Your task to perform on an android device: Turn on the flashlight Image 0: 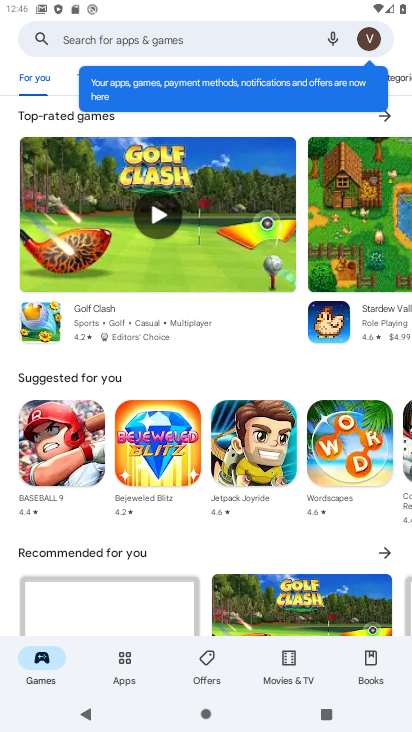
Step 0: press home button
Your task to perform on an android device: Turn on the flashlight Image 1: 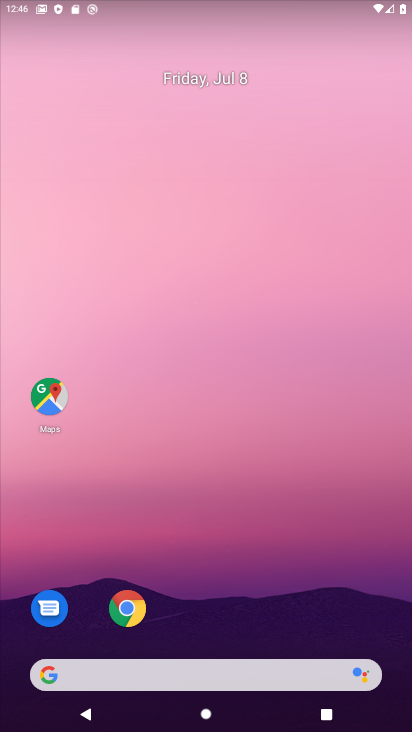
Step 1: drag from (230, 14) to (239, 393)
Your task to perform on an android device: Turn on the flashlight Image 2: 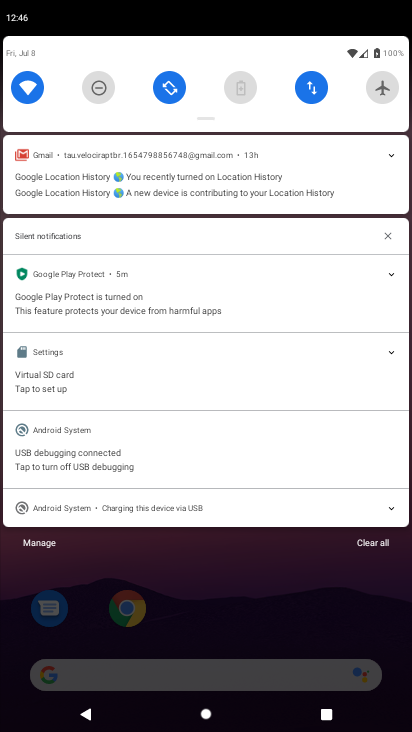
Step 2: drag from (216, 124) to (179, 430)
Your task to perform on an android device: Turn on the flashlight Image 3: 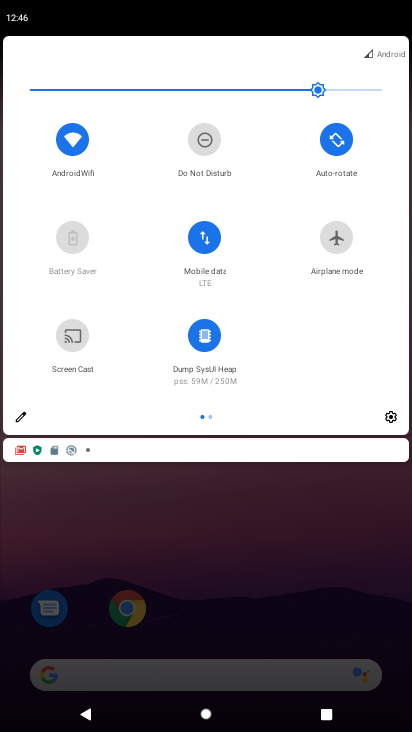
Step 3: click (17, 414)
Your task to perform on an android device: Turn on the flashlight Image 4: 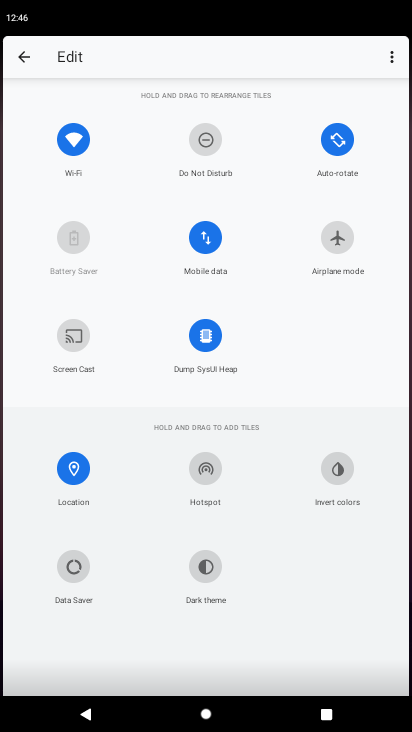
Step 4: task complete